Your task to perform on an android device: What's the weather going to be tomorrow? Image 0: 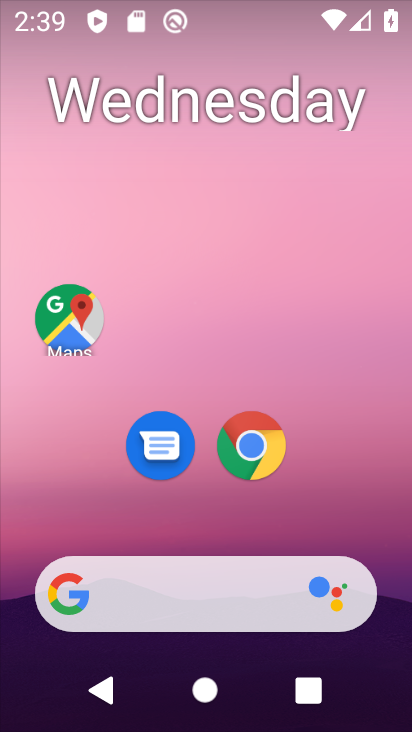
Step 0: drag from (8, 183) to (410, 166)
Your task to perform on an android device: What's the weather going to be tomorrow? Image 1: 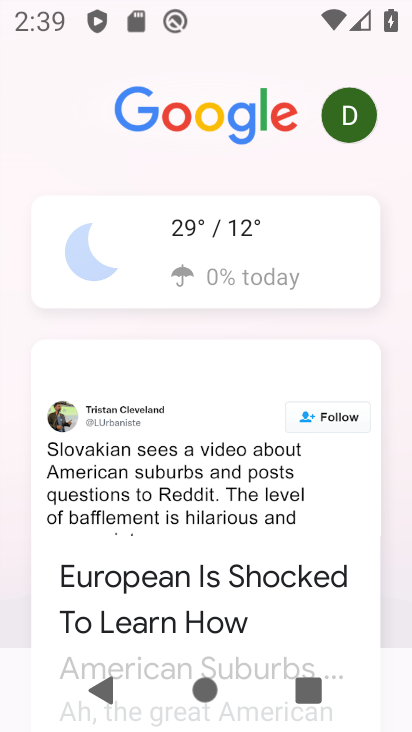
Step 1: click (286, 237)
Your task to perform on an android device: What's the weather going to be tomorrow? Image 2: 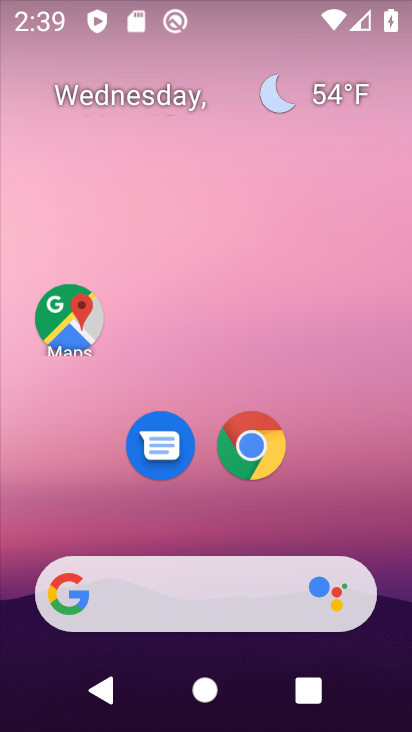
Step 2: click (320, 91)
Your task to perform on an android device: What's the weather going to be tomorrow? Image 3: 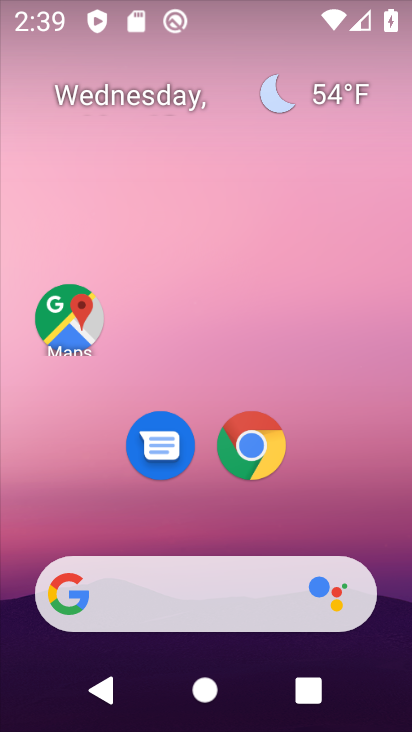
Step 3: click (341, 105)
Your task to perform on an android device: What's the weather going to be tomorrow? Image 4: 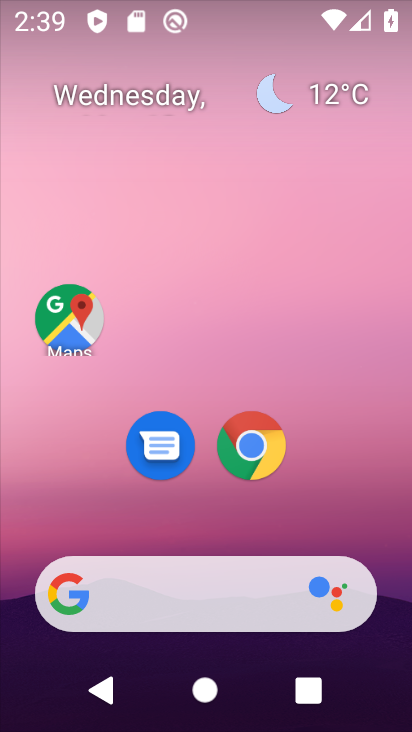
Step 4: click (341, 104)
Your task to perform on an android device: What's the weather going to be tomorrow? Image 5: 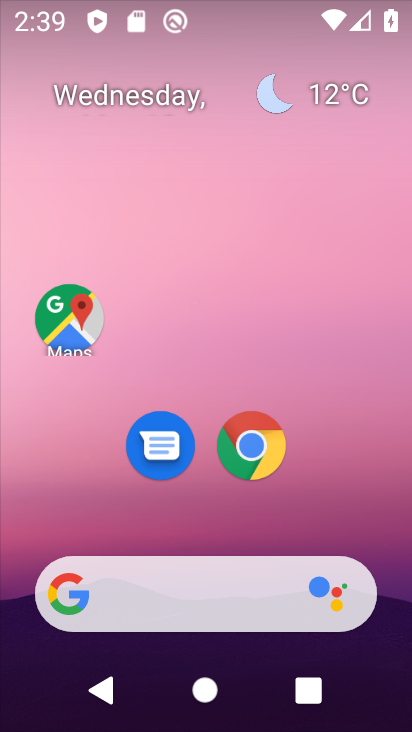
Step 5: click (339, 89)
Your task to perform on an android device: What's the weather going to be tomorrow? Image 6: 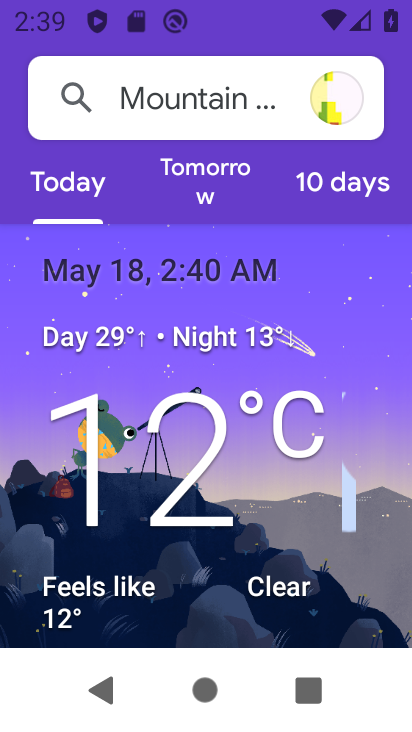
Step 6: click (222, 191)
Your task to perform on an android device: What's the weather going to be tomorrow? Image 7: 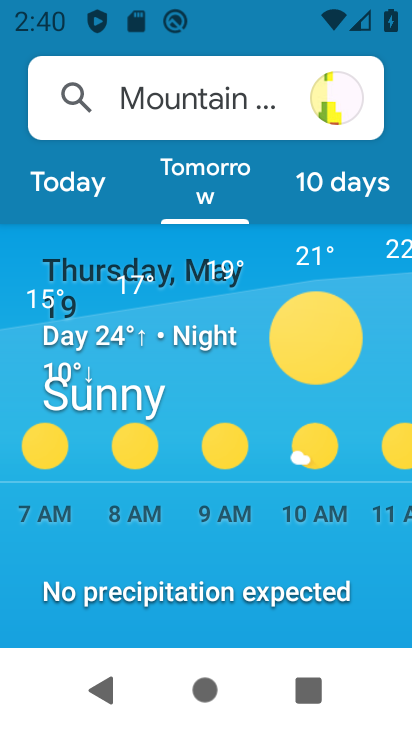
Step 7: task complete